Your task to perform on an android device: Check the weather Image 0: 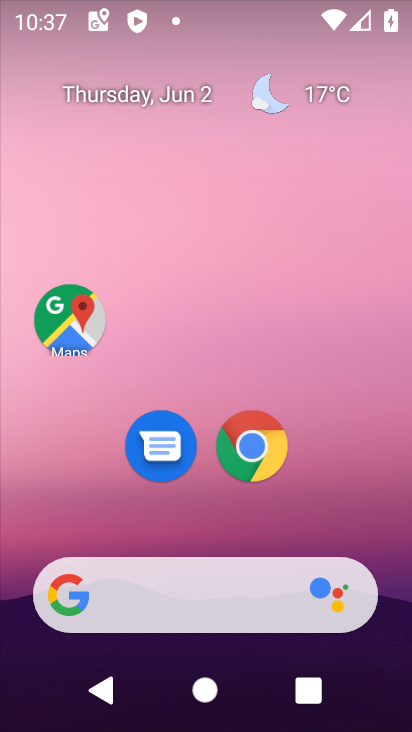
Step 0: click (318, 105)
Your task to perform on an android device: Check the weather Image 1: 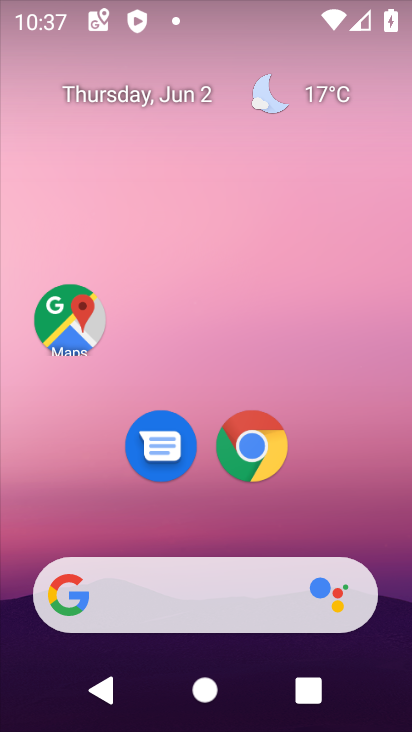
Step 1: click (316, 100)
Your task to perform on an android device: Check the weather Image 2: 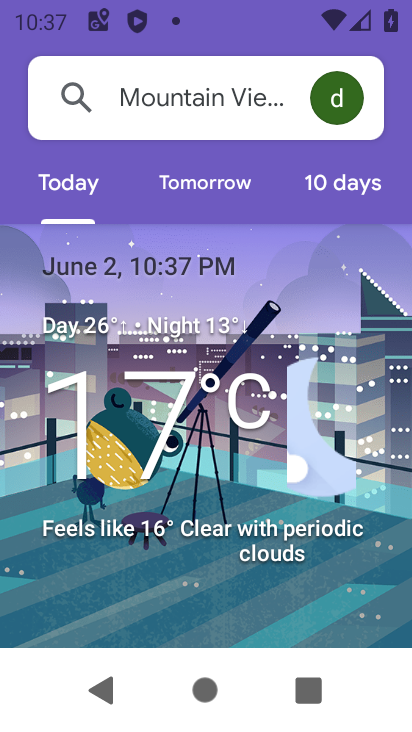
Step 2: task complete